Your task to perform on an android device: Go to Amazon Image 0: 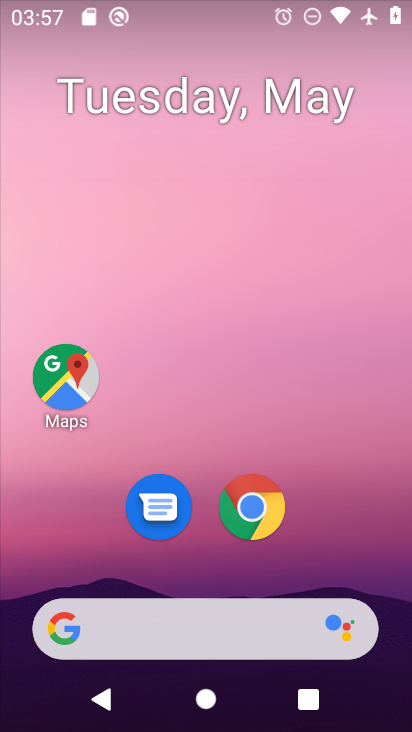
Step 0: click (232, 509)
Your task to perform on an android device: Go to Amazon Image 1: 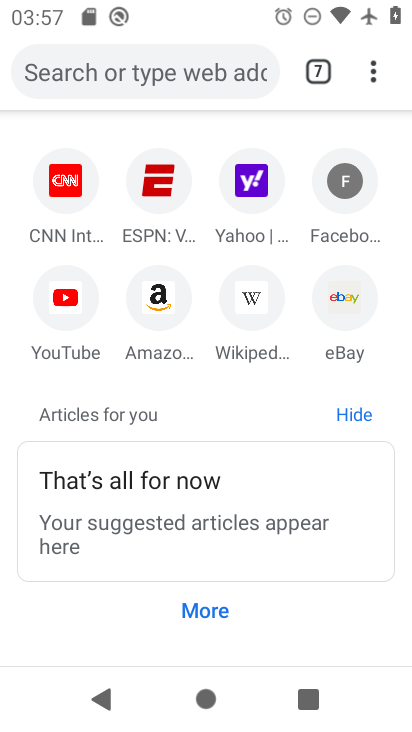
Step 1: click (154, 303)
Your task to perform on an android device: Go to Amazon Image 2: 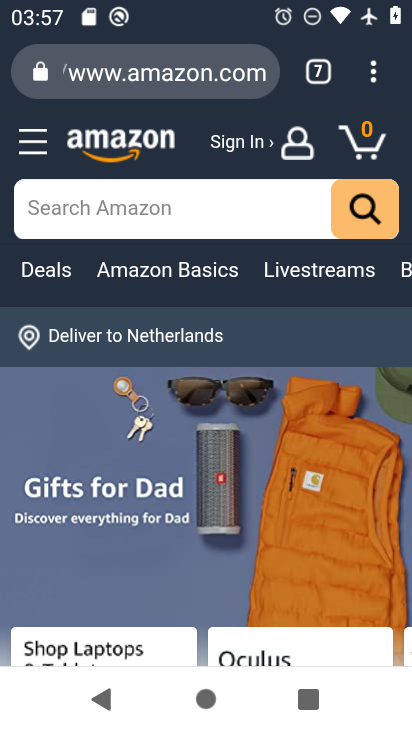
Step 2: task complete